Your task to perform on an android device: open a bookmark in the chrome app Image 0: 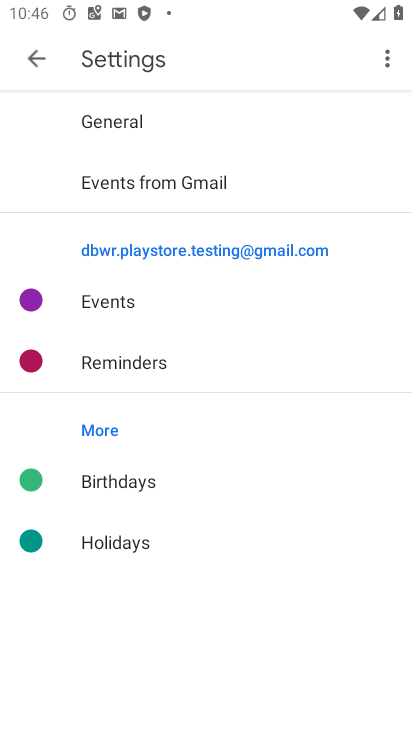
Step 0: press back button
Your task to perform on an android device: open a bookmark in the chrome app Image 1: 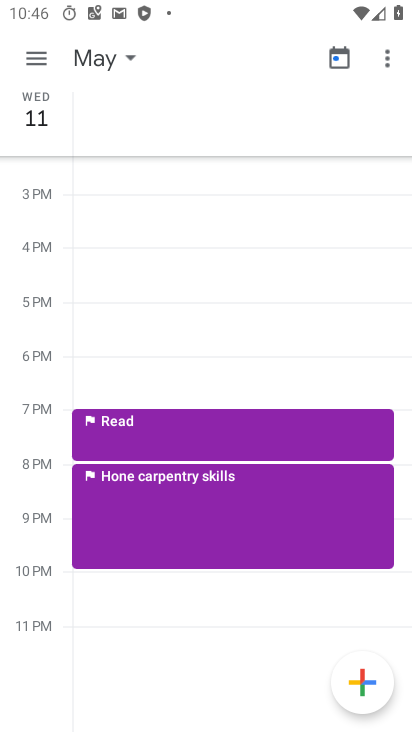
Step 1: press back button
Your task to perform on an android device: open a bookmark in the chrome app Image 2: 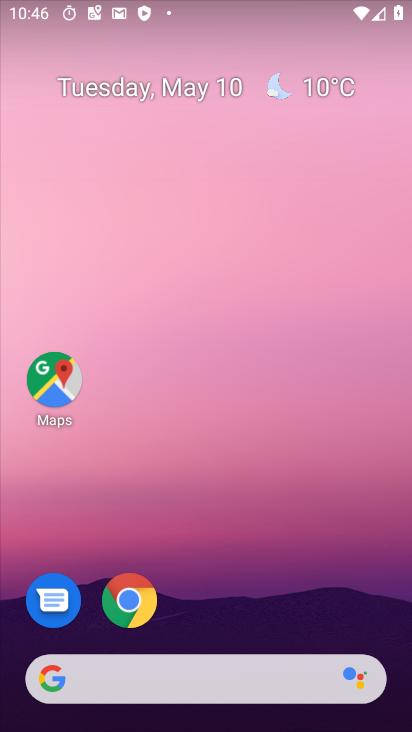
Step 2: drag from (255, 555) to (215, 9)
Your task to perform on an android device: open a bookmark in the chrome app Image 3: 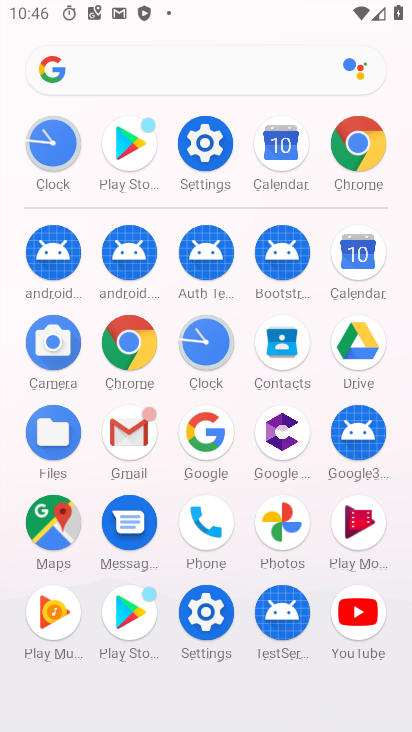
Step 3: click (129, 340)
Your task to perform on an android device: open a bookmark in the chrome app Image 4: 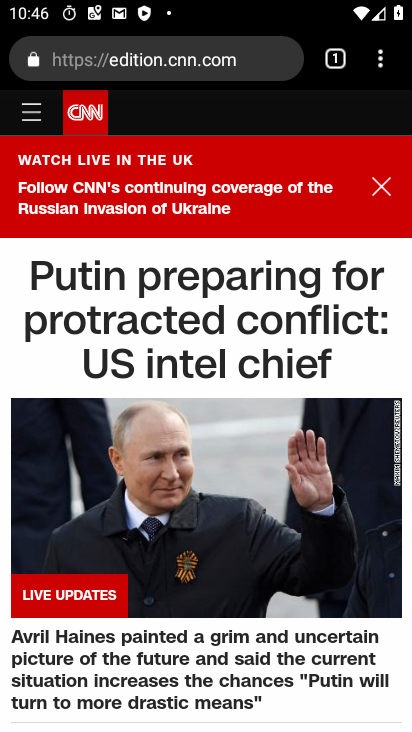
Step 4: drag from (377, 56) to (218, 285)
Your task to perform on an android device: open a bookmark in the chrome app Image 5: 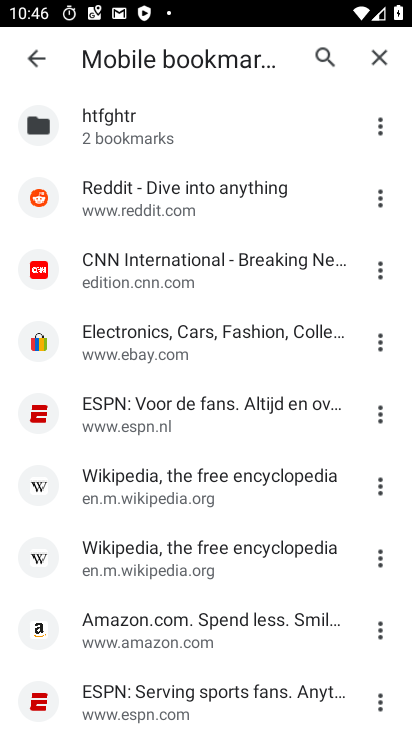
Step 5: drag from (231, 513) to (231, 347)
Your task to perform on an android device: open a bookmark in the chrome app Image 6: 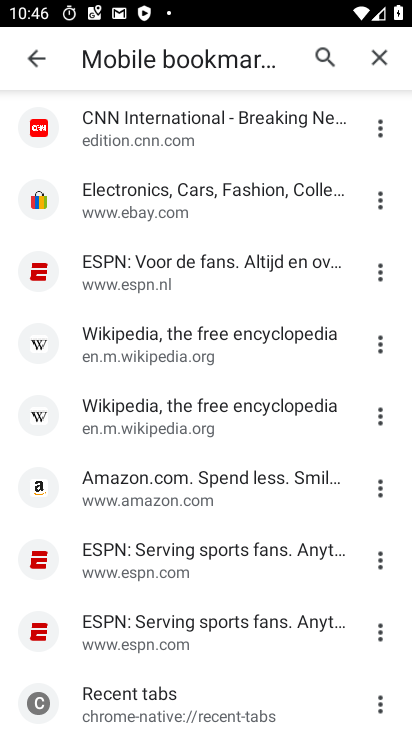
Step 6: click (142, 341)
Your task to perform on an android device: open a bookmark in the chrome app Image 7: 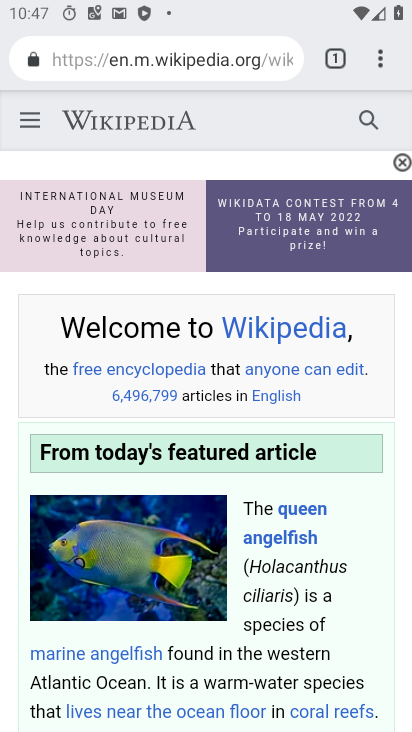
Step 7: task complete